Your task to perform on an android device: find photos in the google photos app Image 0: 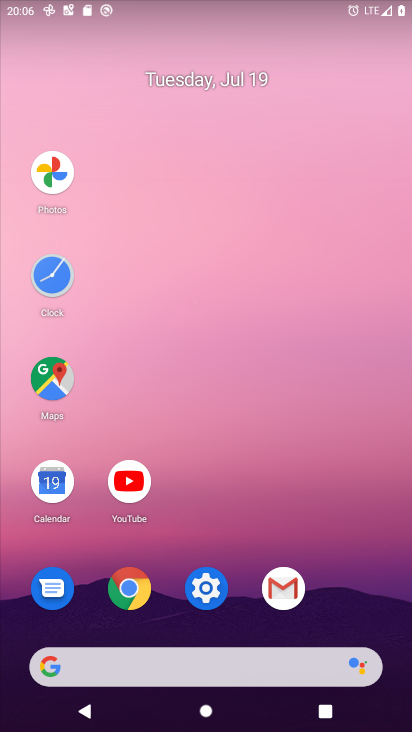
Step 0: click (55, 160)
Your task to perform on an android device: find photos in the google photos app Image 1: 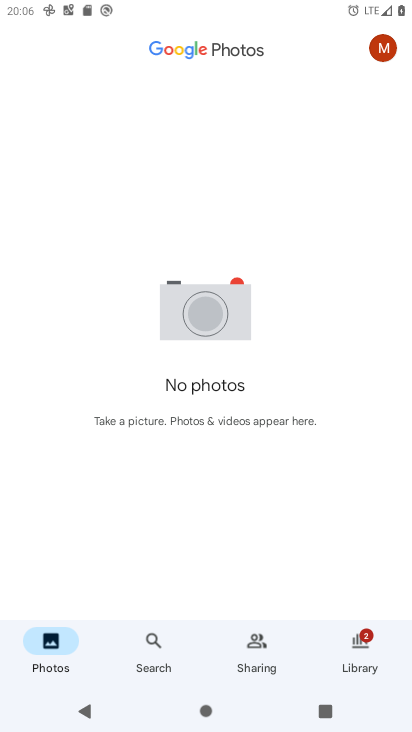
Step 1: click (146, 642)
Your task to perform on an android device: find photos in the google photos app Image 2: 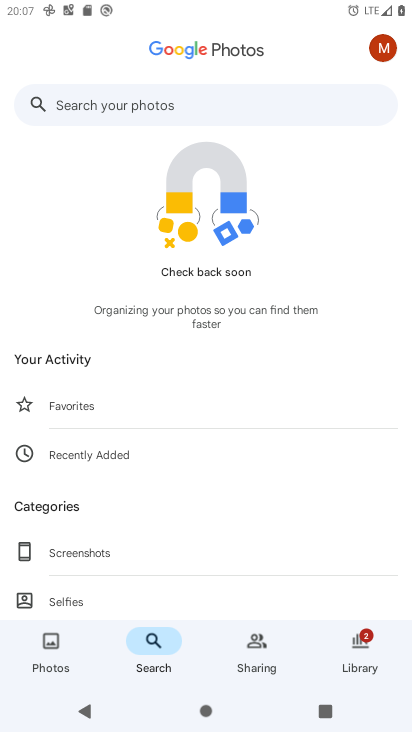
Step 2: task complete